Your task to perform on an android device: Do I have any events this weekend? Image 0: 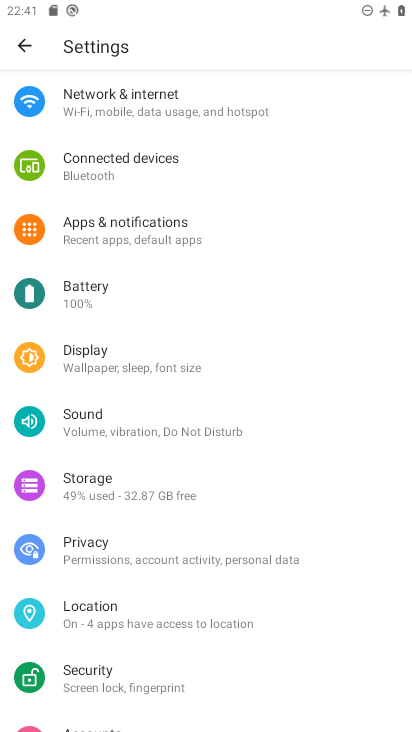
Step 0: press home button
Your task to perform on an android device: Do I have any events this weekend? Image 1: 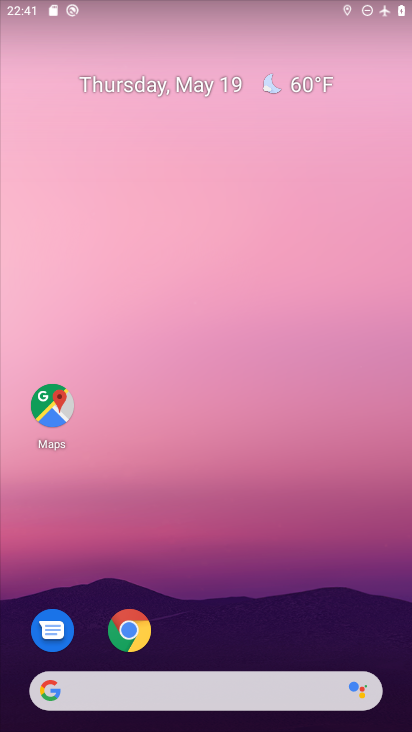
Step 1: drag from (220, 522) to (253, 18)
Your task to perform on an android device: Do I have any events this weekend? Image 2: 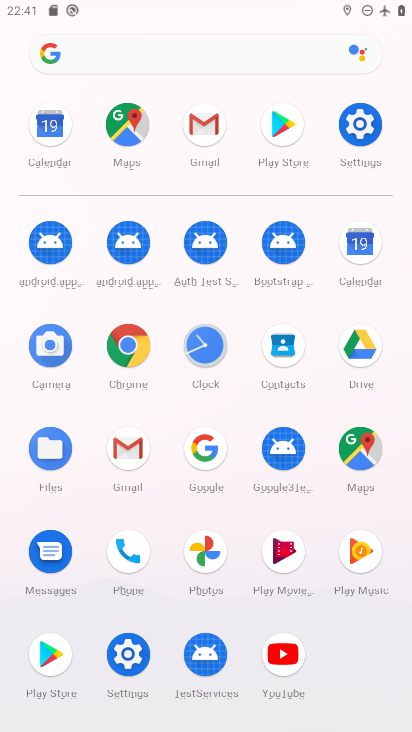
Step 2: click (365, 238)
Your task to perform on an android device: Do I have any events this weekend? Image 3: 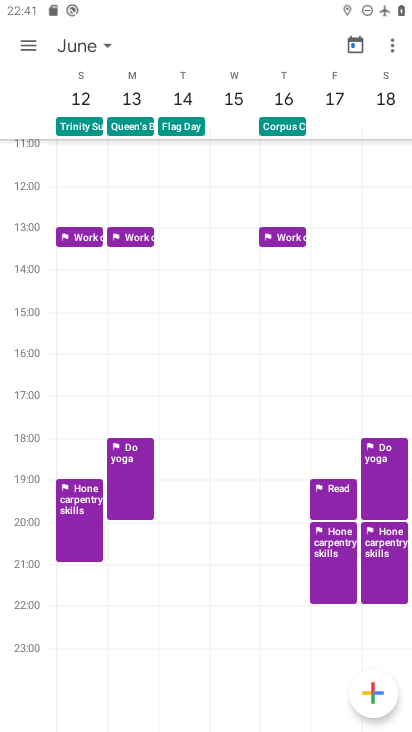
Step 3: click (103, 47)
Your task to perform on an android device: Do I have any events this weekend? Image 4: 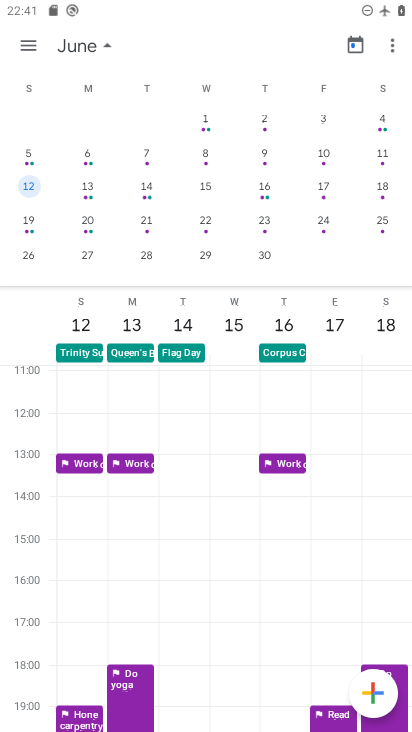
Step 4: drag from (34, 143) to (372, 157)
Your task to perform on an android device: Do I have any events this weekend? Image 5: 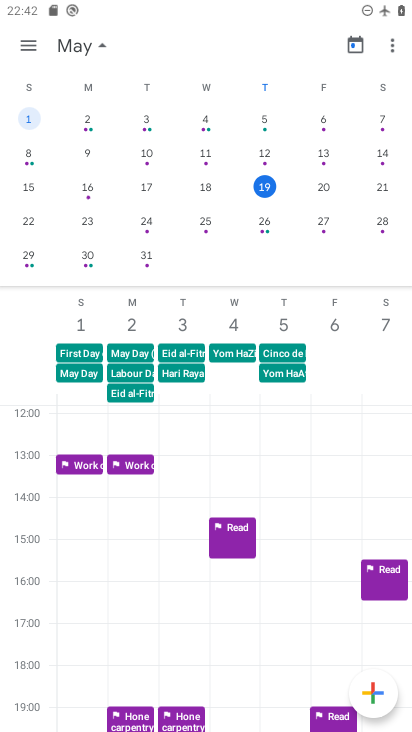
Step 5: click (271, 188)
Your task to perform on an android device: Do I have any events this weekend? Image 6: 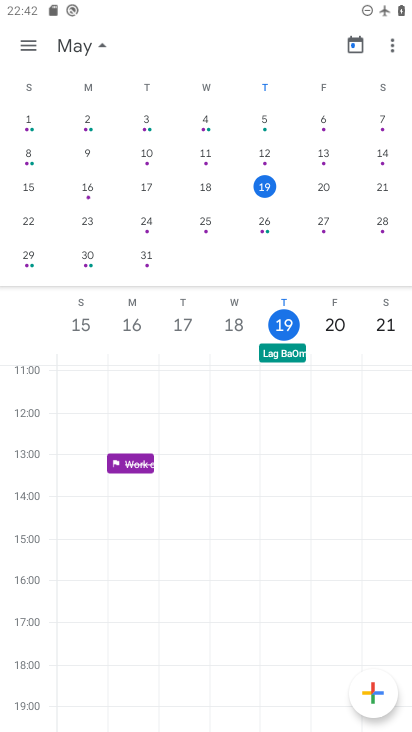
Step 6: task complete